Your task to perform on an android device: Go to display settings Image 0: 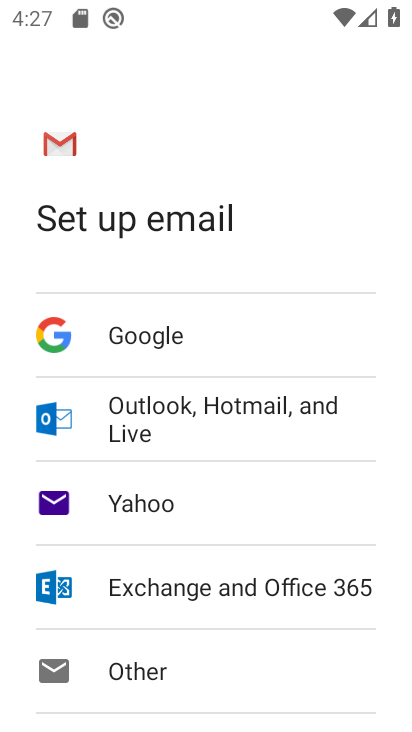
Step 0: press home button
Your task to perform on an android device: Go to display settings Image 1: 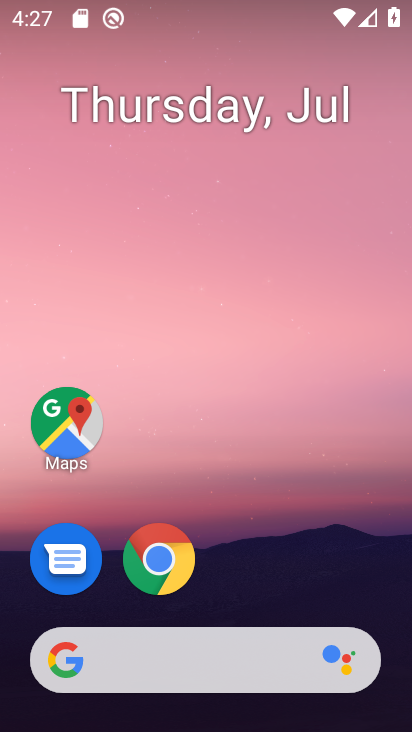
Step 1: drag from (238, 637) to (320, 149)
Your task to perform on an android device: Go to display settings Image 2: 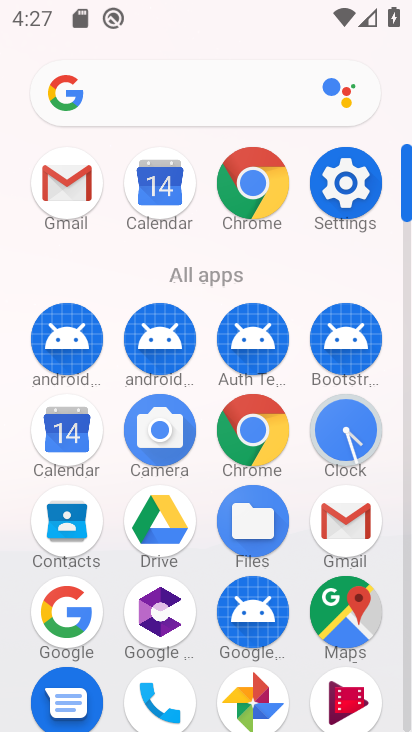
Step 2: click (345, 200)
Your task to perform on an android device: Go to display settings Image 3: 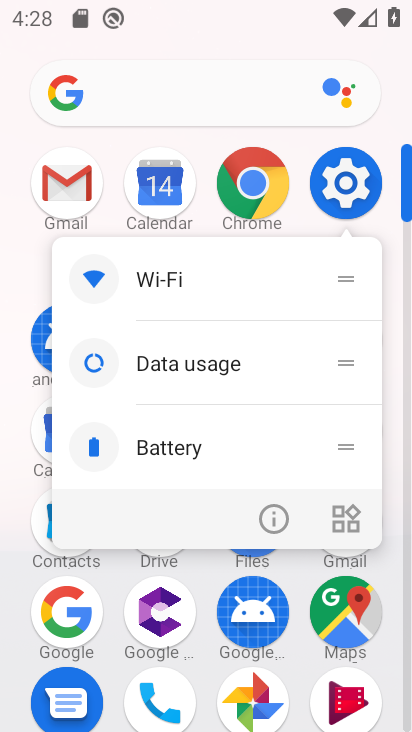
Step 3: click (345, 201)
Your task to perform on an android device: Go to display settings Image 4: 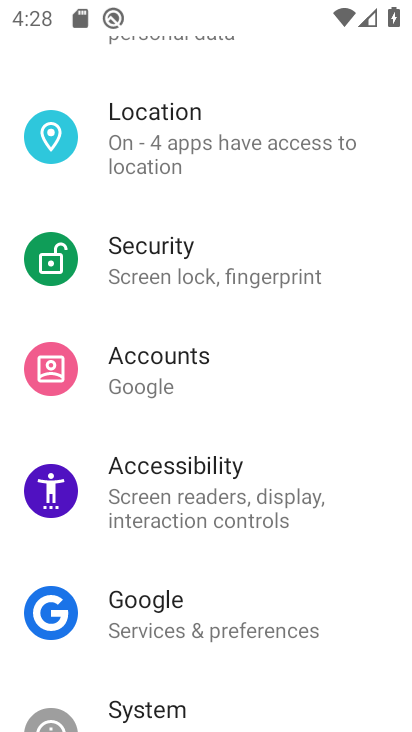
Step 4: drag from (290, 289) to (259, 651)
Your task to perform on an android device: Go to display settings Image 5: 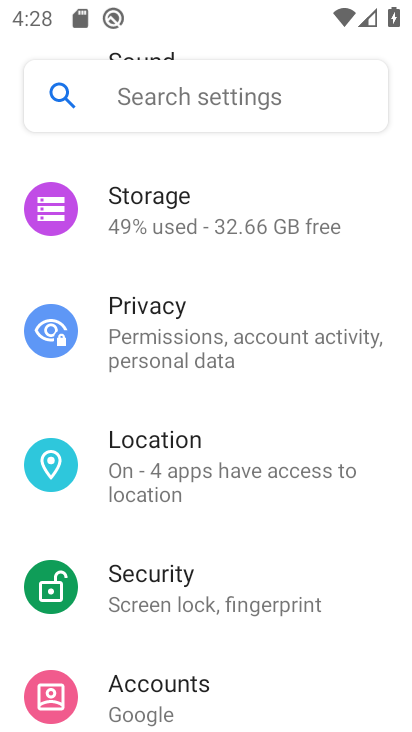
Step 5: drag from (208, 251) to (199, 471)
Your task to perform on an android device: Go to display settings Image 6: 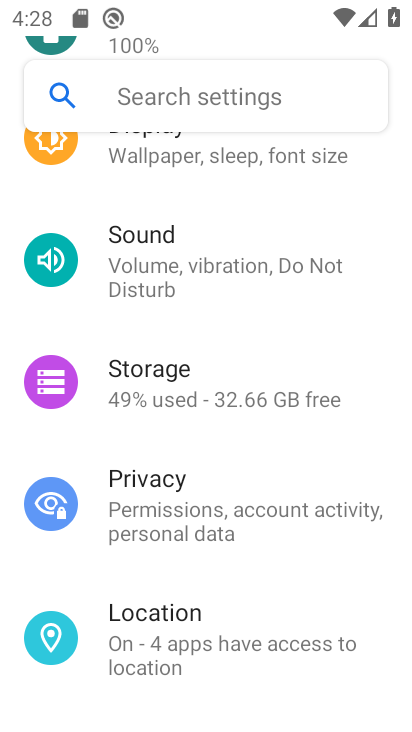
Step 6: drag from (175, 238) to (177, 459)
Your task to perform on an android device: Go to display settings Image 7: 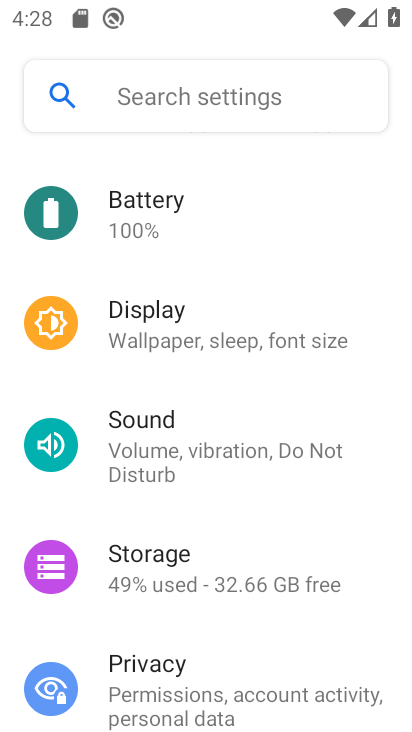
Step 7: click (191, 326)
Your task to perform on an android device: Go to display settings Image 8: 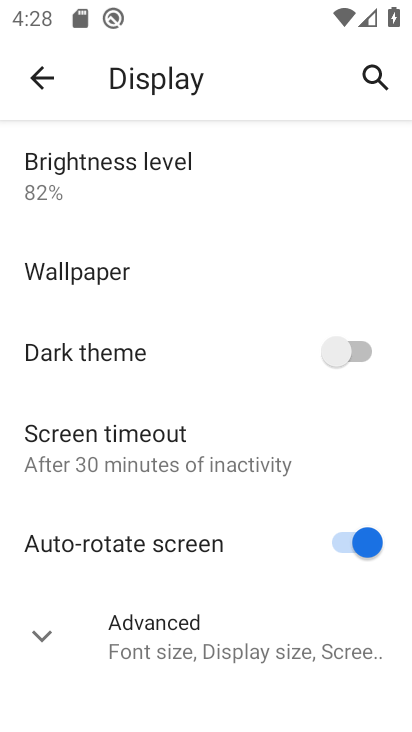
Step 8: click (191, 650)
Your task to perform on an android device: Go to display settings Image 9: 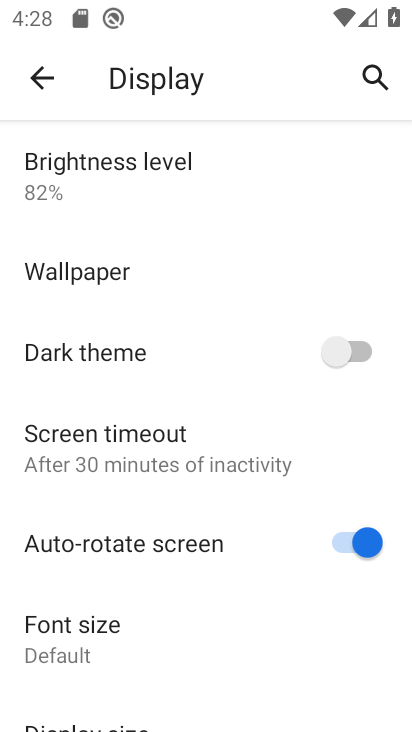
Step 9: task complete